Your task to perform on an android device: see tabs open on other devices in the chrome app Image 0: 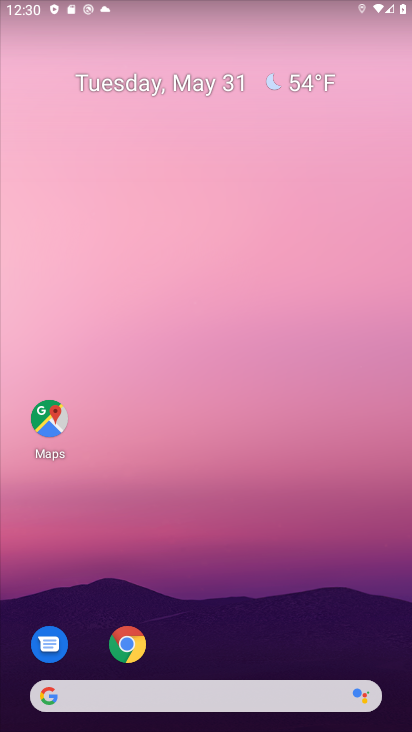
Step 0: press home button
Your task to perform on an android device: see tabs open on other devices in the chrome app Image 1: 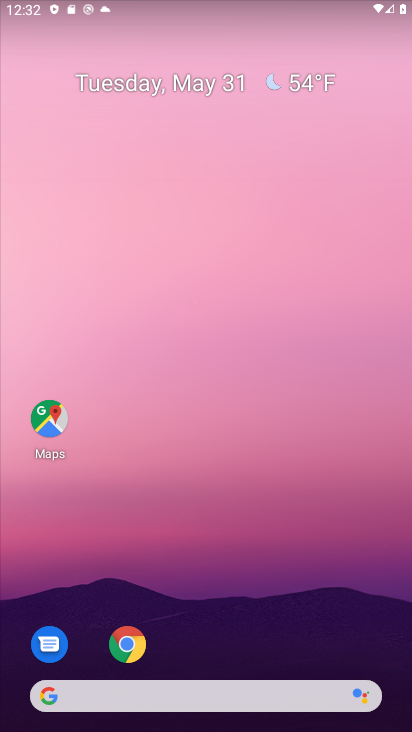
Step 1: click (121, 648)
Your task to perform on an android device: see tabs open on other devices in the chrome app Image 2: 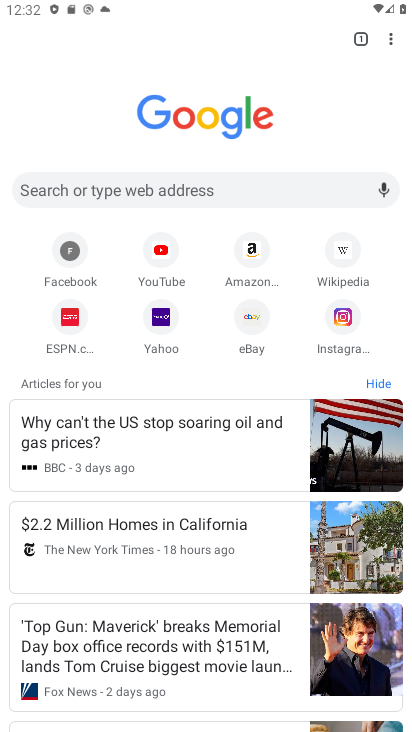
Step 2: task complete